Your task to perform on an android device: choose inbox layout in the gmail app Image 0: 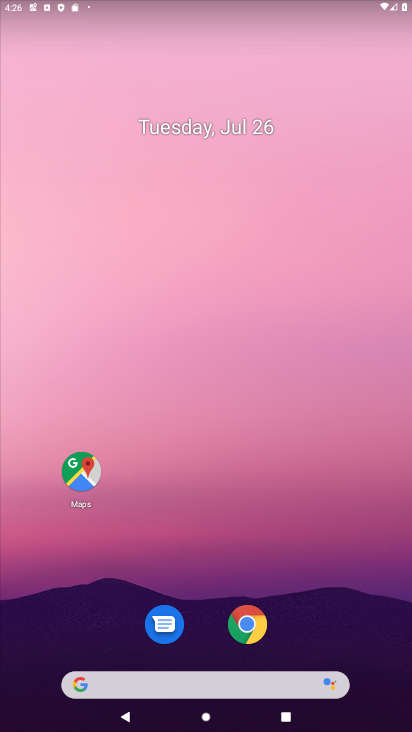
Step 0: drag from (229, 692) to (224, 109)
Your task to perform on an android device: choose inbox layout in the gmail app Image 1: 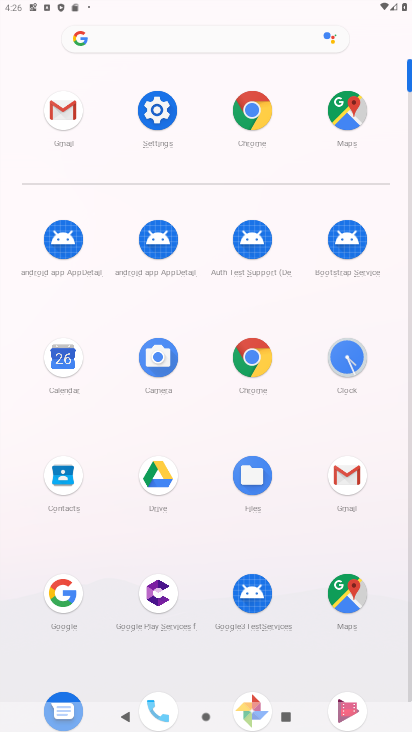
Step 1: click (346, 478)
Your task to perform on an android device: choose inbox layout in the gmail app Image 2: 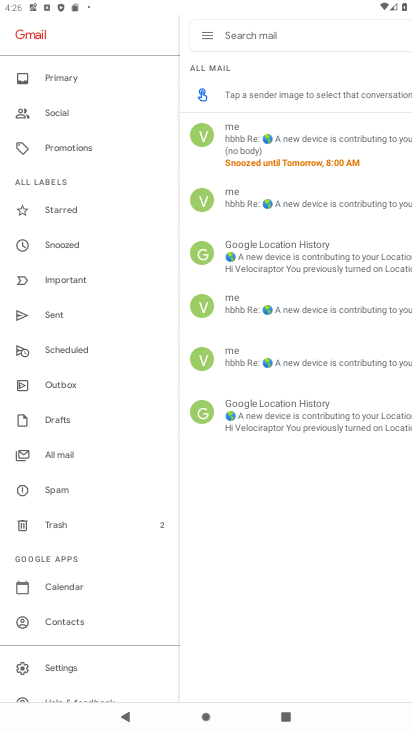
Step 2: click (65, 666)
Your task to perform on an android device: choose inbox layout in the gmail app Image 3: 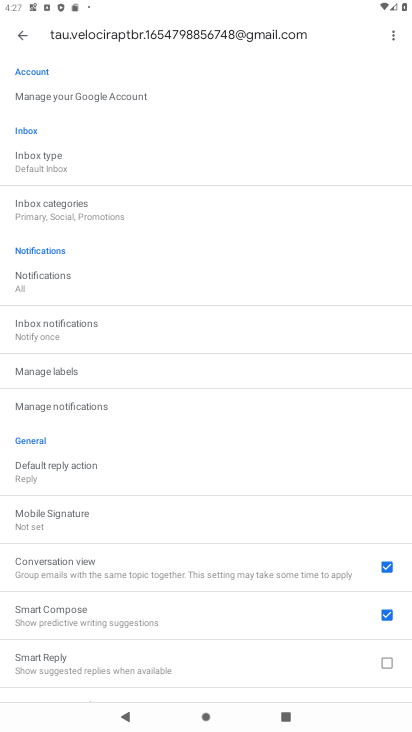
Step 3: click (85, 163)
Your task to perform on an android device: choose inbox layout in the gmail app Image 4: 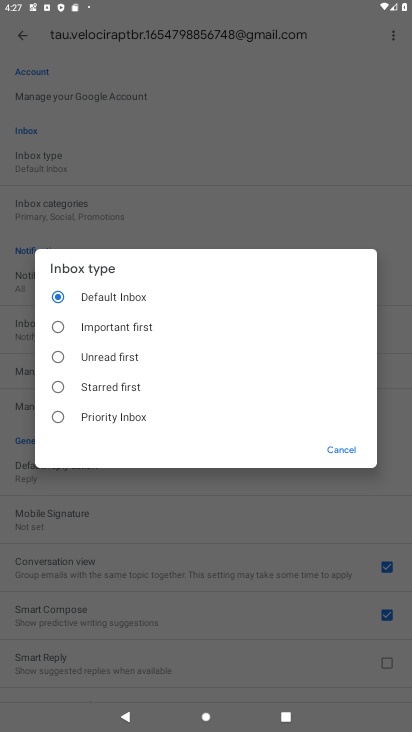
Step 4: click (52, 415)
Your task to perform on an android device: choose inbox layout in the gmail app Image 5: 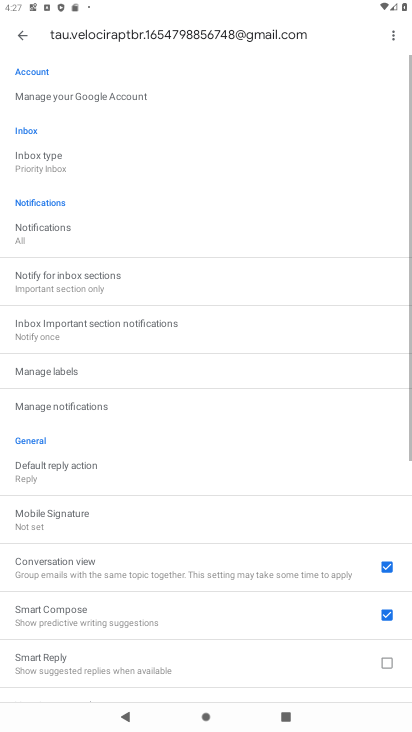
Step 5: task complete